Your task to perform on an android device: allow notifications from all sites in the chrome app Image 0: 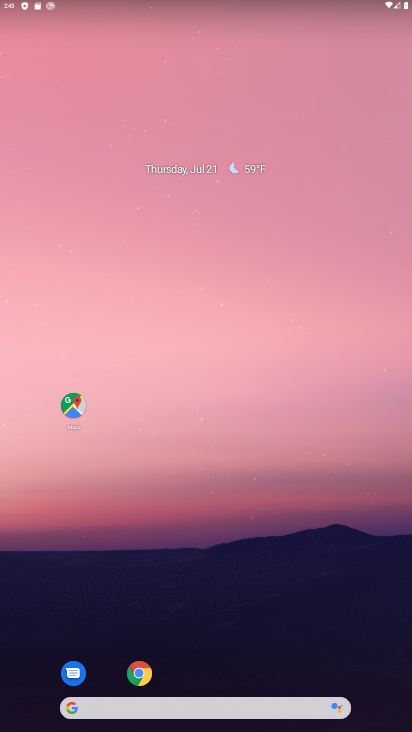
Step 0: click (139, 674)
Your task to perform on an android device: allow notifications from all sites in the chrome app Image 1: 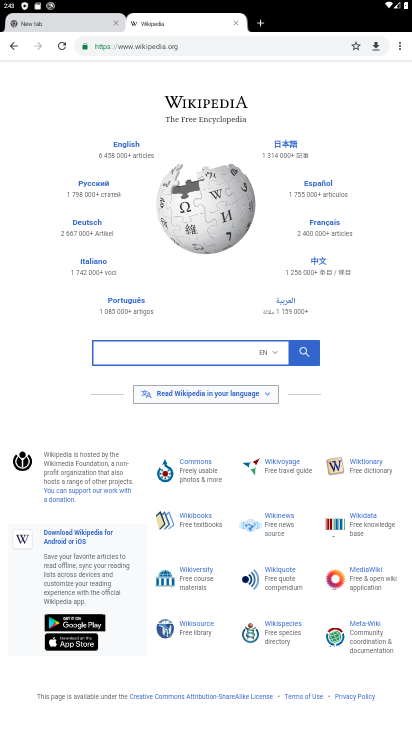
Step 1: click (398, 51)
Your task to perform on an android device: allow notifications from all sites in the chrome app Image 2: 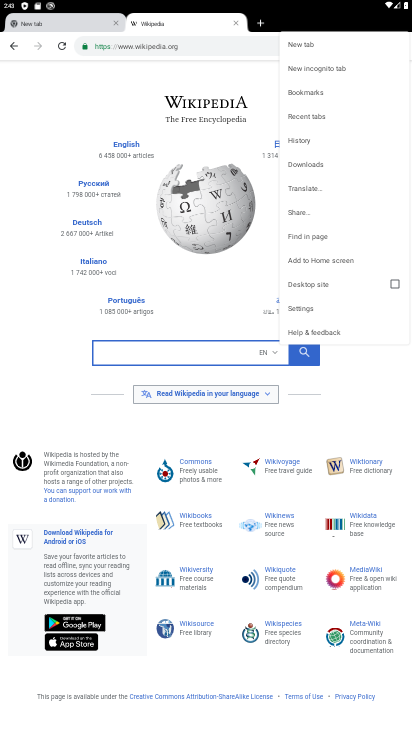
Step 2: click (297, 303)
Your task to perform on an android device: allow notifications from all sites in the chrome app Image 3: 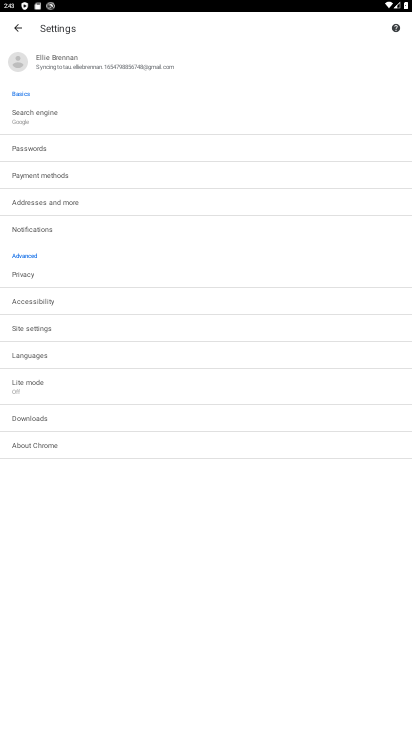
Step 3: click (34, 331)
Your task to perform on an android device: allow notifications from all sites in the chrome app Image 4: 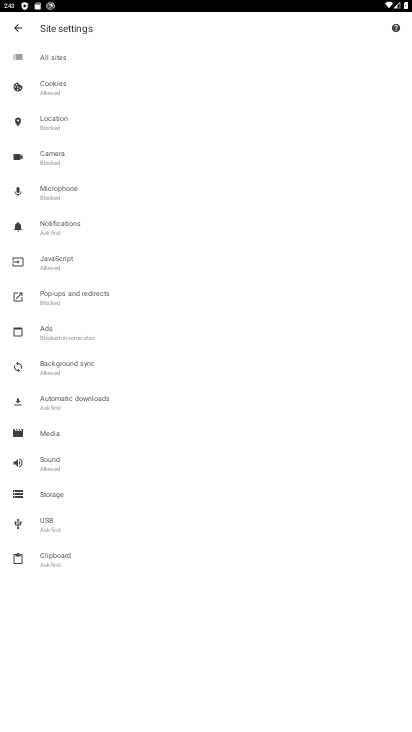
Step 4: click (60, 226)
Your task to perform on an android device: allow notifications from all sites in the chrome app Image 5: 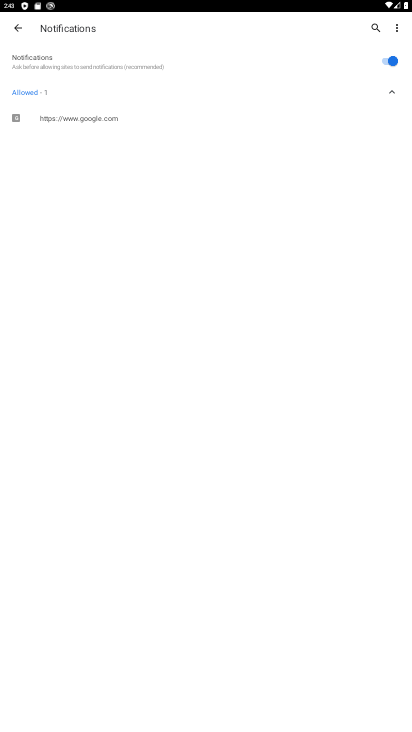
Step 5: task complete